Your task to perform on an android device: turn off smart reply in the gmail app Image 0: 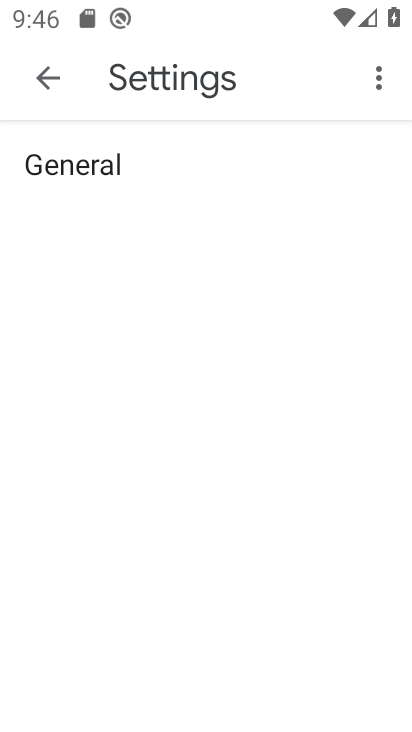
Step 0: press home button
Your task to perform on an android device: turn off smart reply in the gmail app Image 1: 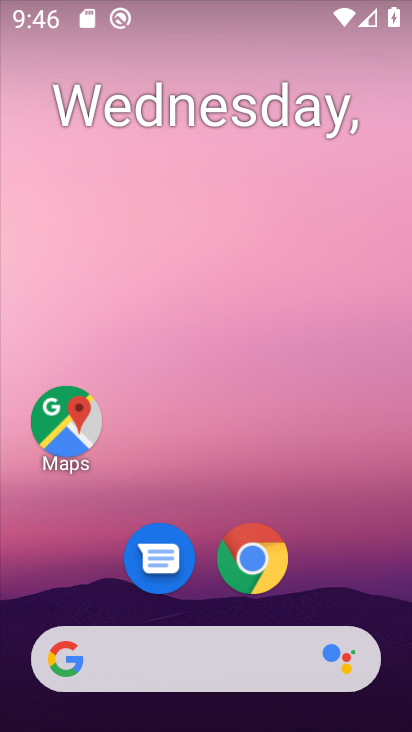
Step 1: drag from (365, 589) to (388, 116)
Your task to perform on an android device: turn off smart reply in the gmail app Image 2: 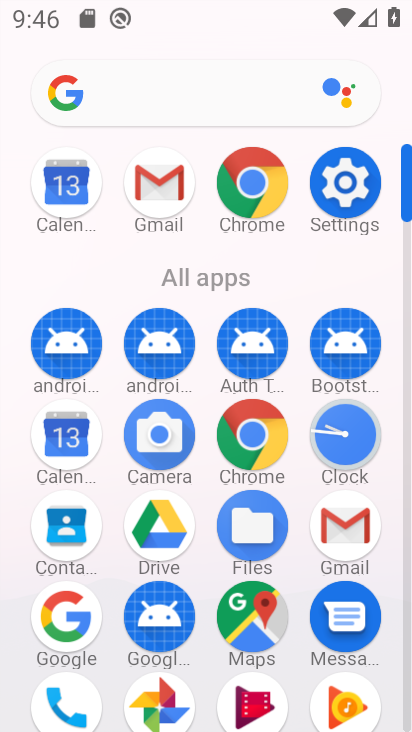
Step 2: click (352, 523)
Your task to perform on an android device: turn off smart reply in the gmail app Image 3: 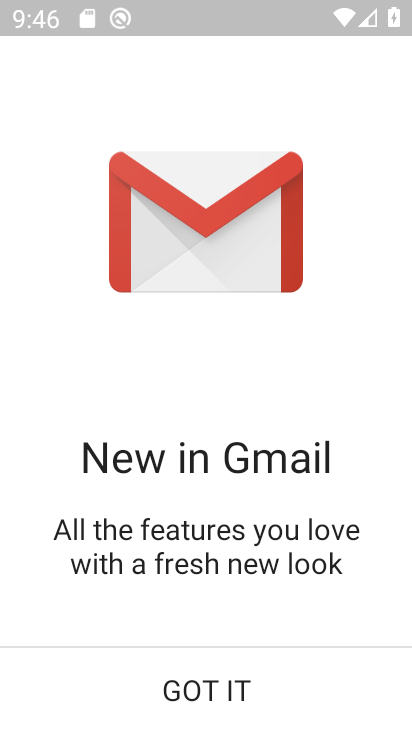
Step 3: click (238, 689)
Your task to perform on an android device: turn off smart reply in the gmail app Image 4: 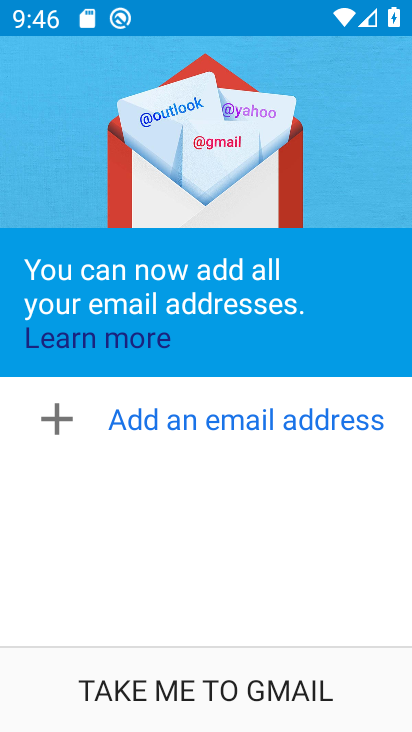
Step 4: click (238, 689)
Your task to perform on an android device: turn off smart reply in the gmail app Image 5: 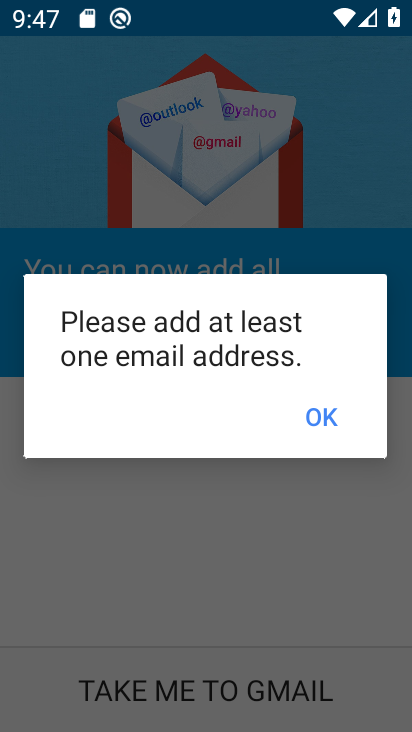
Step 5: task complete